Your task to perform on an android device: Open Chrome and go to settings Image 0: 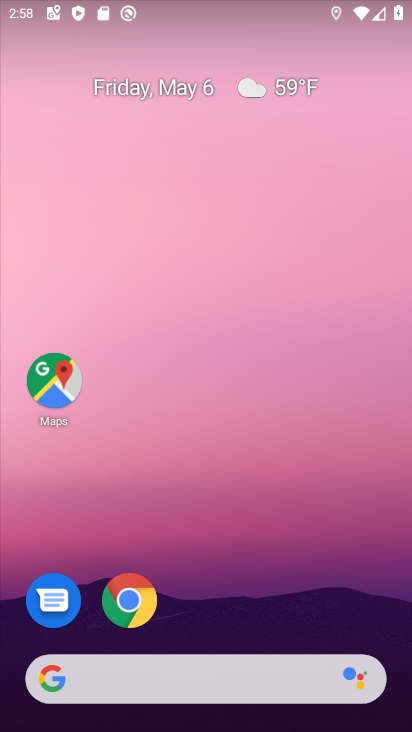
Step 0: click (128, 599)
Your task to perform on an android device: Open Chrome and go to settings Image 1: 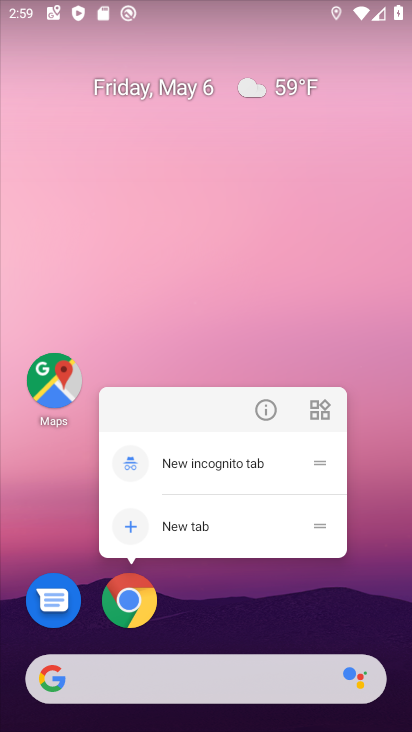
Step 1: click (133, 599)
Your task to perform on an android device: Open Chrome and go to settings Image 2: 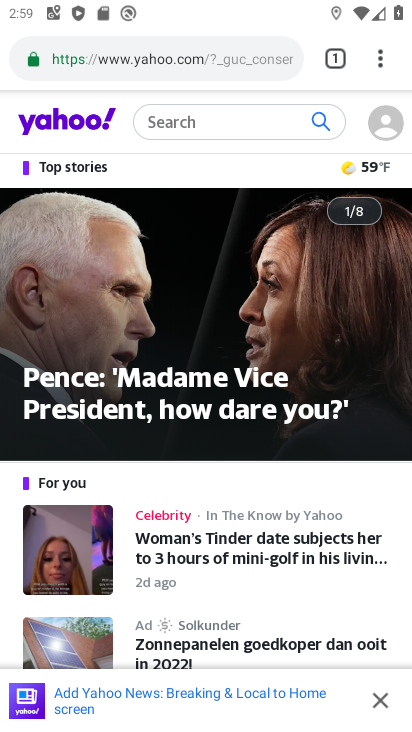
Step 2: click (373, 58)
Your task to perform on an android device: Open Chrome and go to settings Image 3: 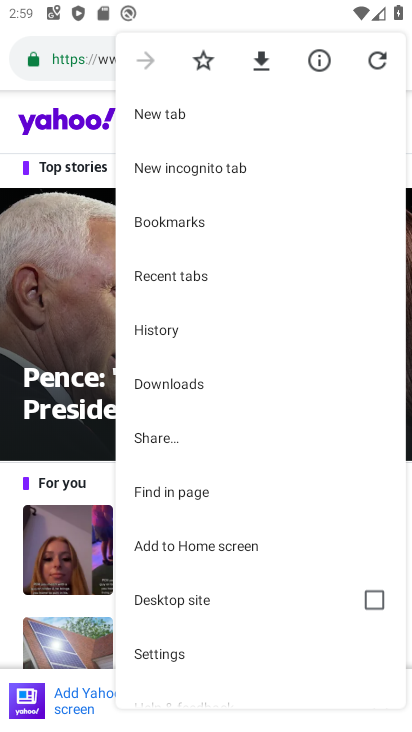
Step 3: click (181, 647)
Your task to perform on an android device: Open Chrome and go to settings Image 4: 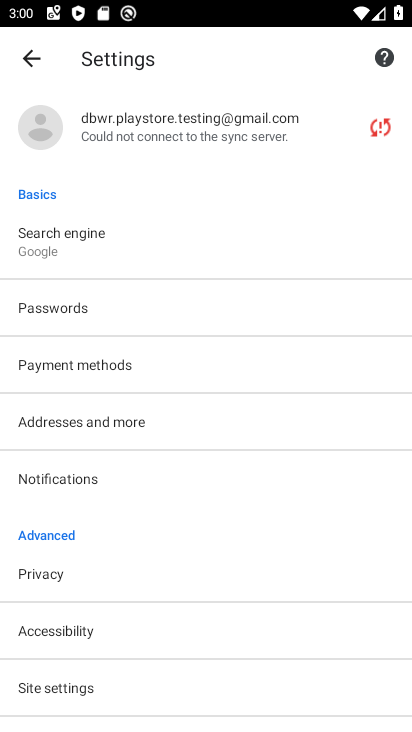
Step 4: task complete